Your task to perform on an android device: empty trash in the gmail app Image 0: 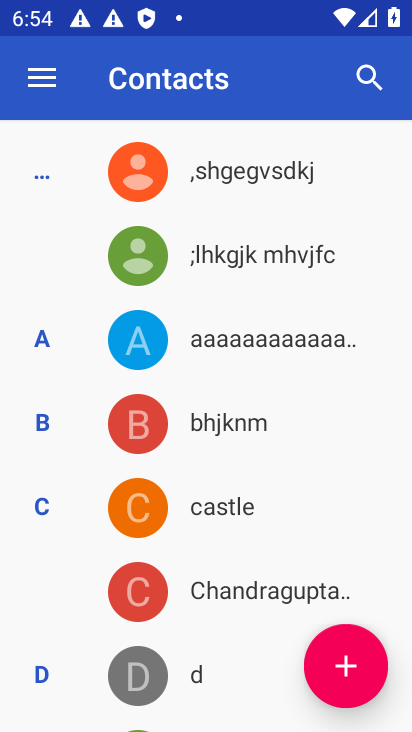
Step 0: press home button
Your task to perform on an android device: empty trash in the gmail app Image 1: 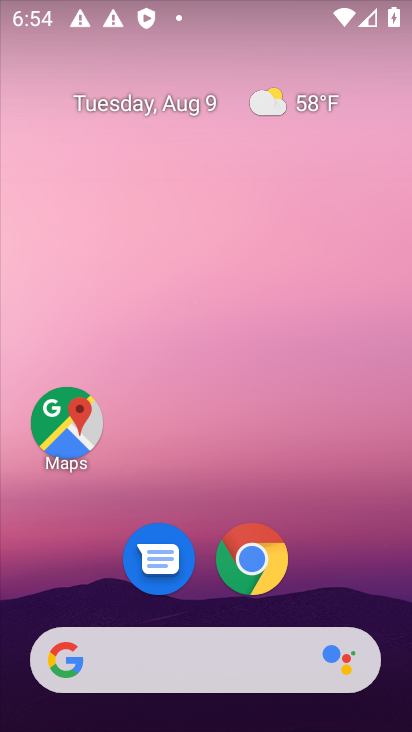
Step 1: drag from (202, 545) to (202, 135)
Your task to perform on an android device: empty trash in the gmail app Image 2: 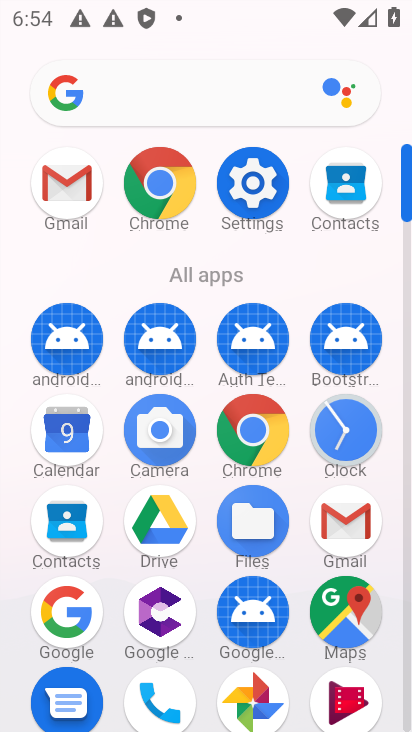
Step 2: click (67, 177)
Your task to perform on an android device: empty trash in the gmail app Image 3: 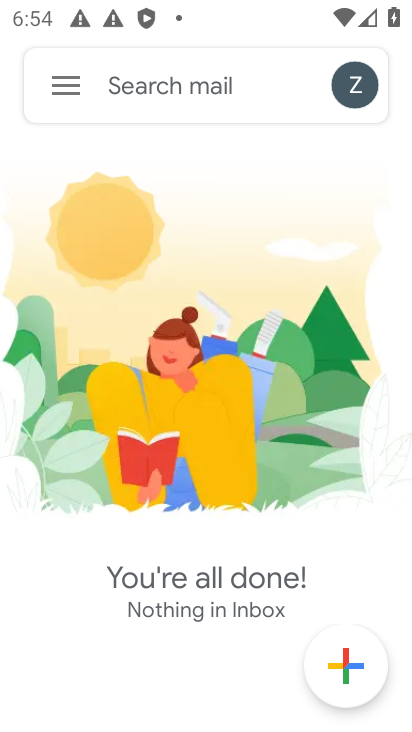
Step 3: click (51, 87)
Your task to perform on an android device: empty trash in the gmail app Image 4: 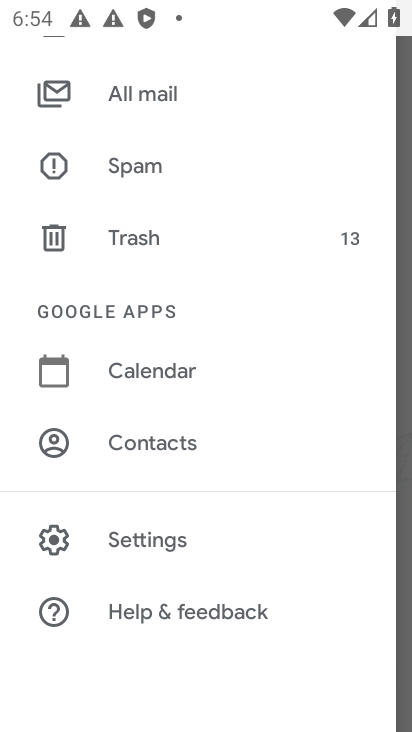
Step 4: click (128, 234)
Your task to perform on an android device: empty trash in the gmail app Image 5: 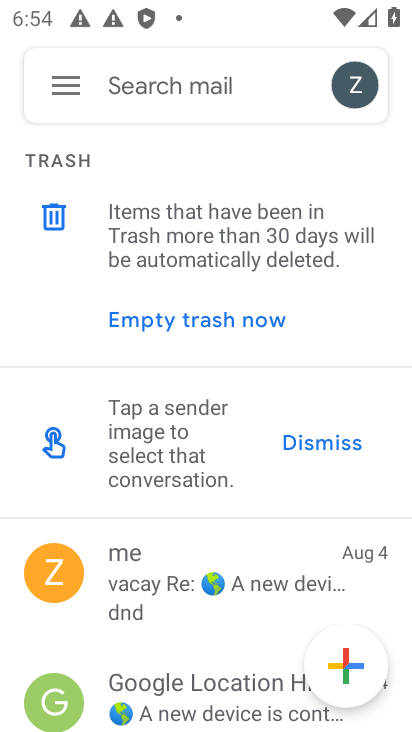
Step 5: click (142, 317)
Your task to perform on an android device: empty trash in the gmail app Image 6: 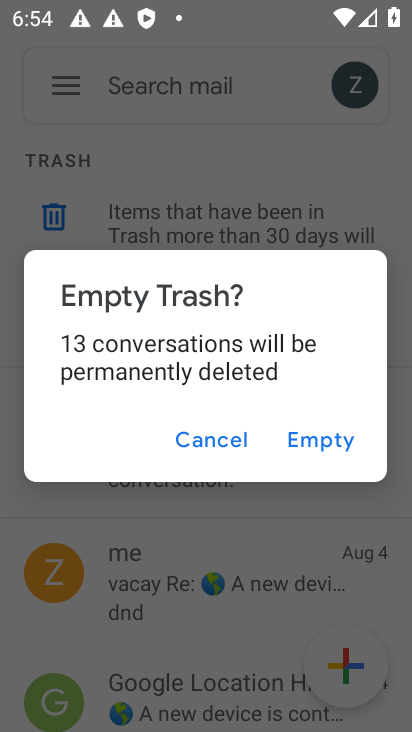
Step 6: click (325, 438)
Your task to perform on an android device: empty trash in the gmail app Image 7: 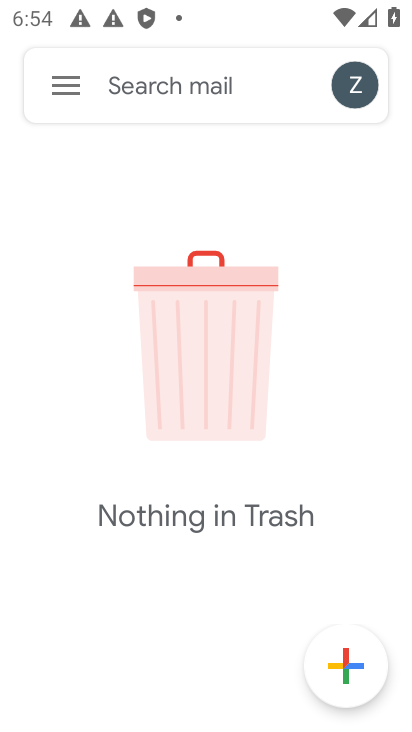
Step 7: task complete